Your task to perform on an android device: turn notification dots off Image 0: 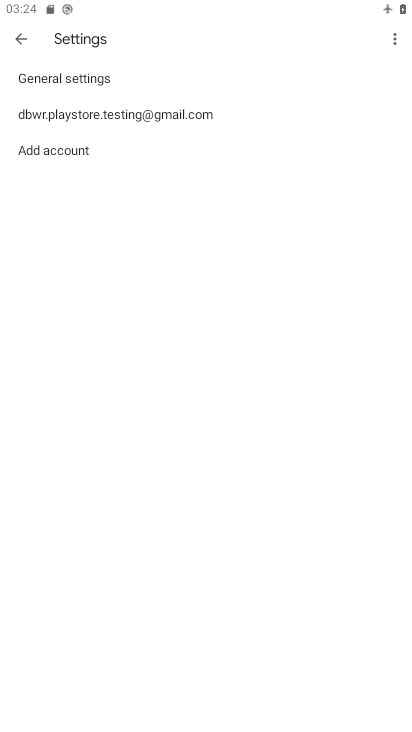
Step 0: press home button
Your task to perform on an android device: turn notification dots off Image 1: 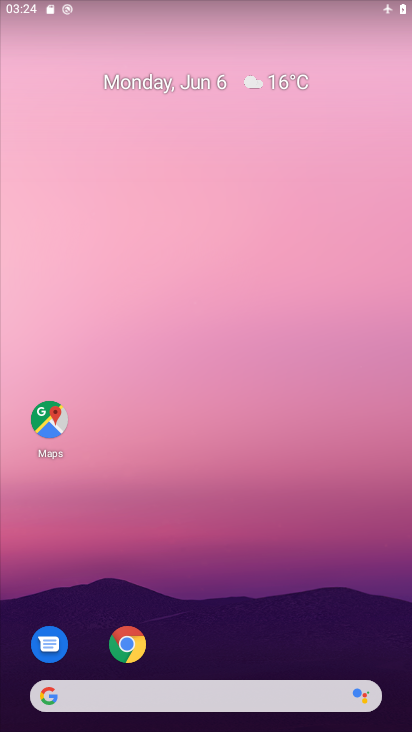
Step 1: drag from (221, 615) to (349, 0)
Your task to perform on an android device: turn notification dots off Image 2: 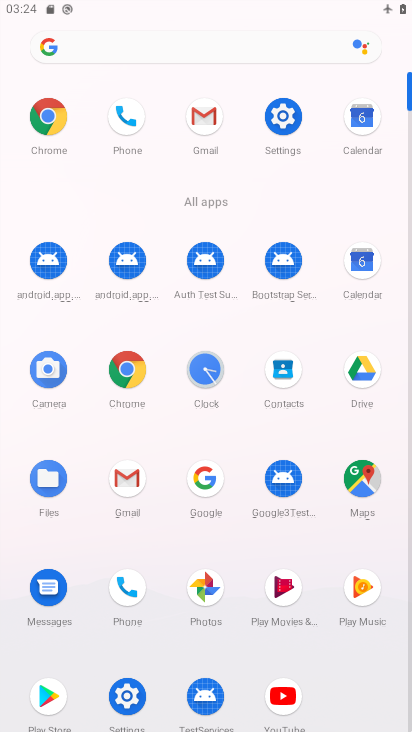
Step 2: click (279, 128)
Your task to perform on an android device: turn notification dots off Image 3: 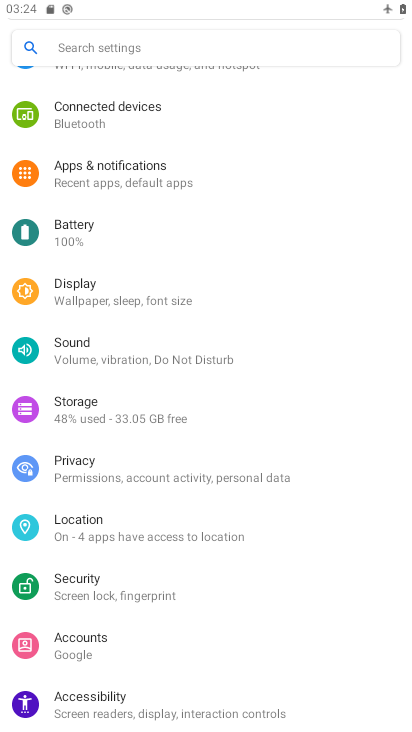
Step 3: click (159, 189)
Your task to perform on an android device: turn notification dots off Image 4: 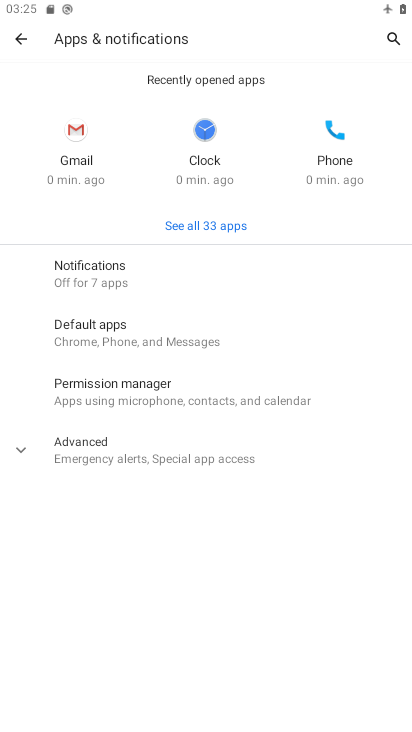
Step 4: click (115, 283)
Your task to perform on an android device: turn notification dots off Image 5: 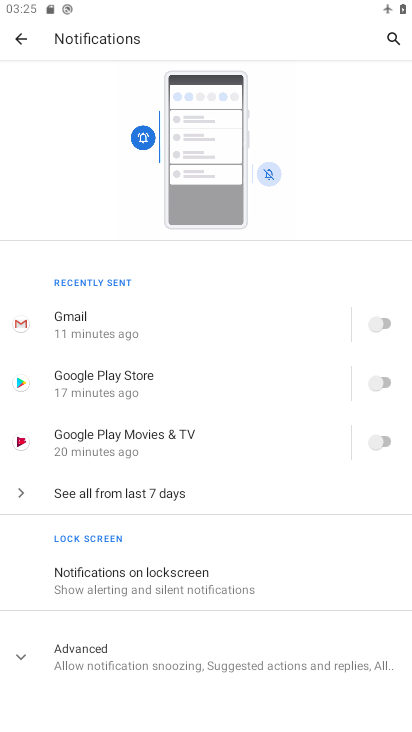
Step 5: drag from (165, 622) to (188, 531)
Your task to perform on an android device: turn notification dots off Image 6: 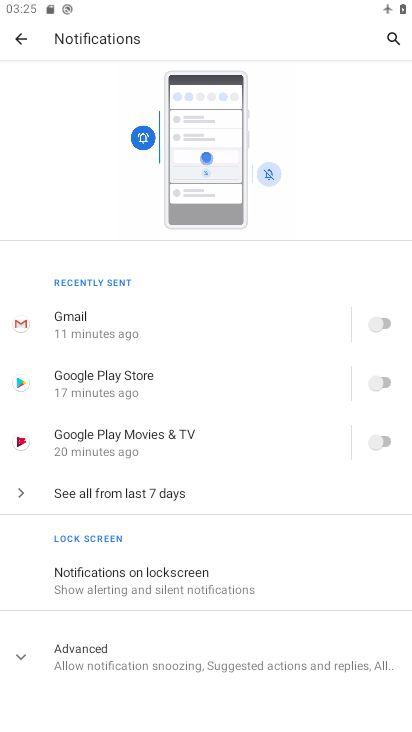
Step 6: click (130, 655)
Your task to perform on an android device: turn notification dots off Image 7: 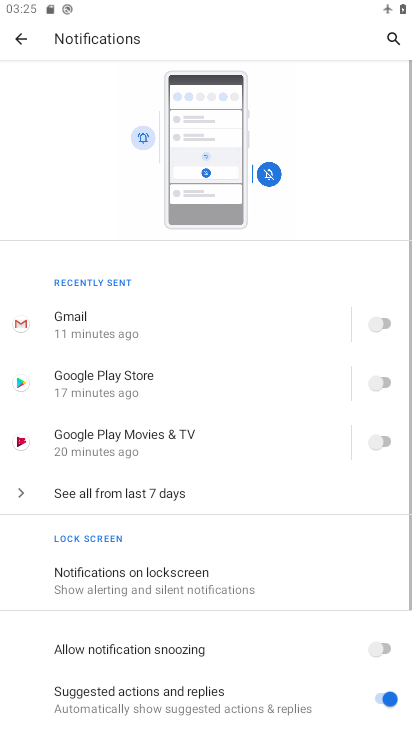
Step 7: task complete